Your task to perform on an android device: Go to Wikipedia Image 0: 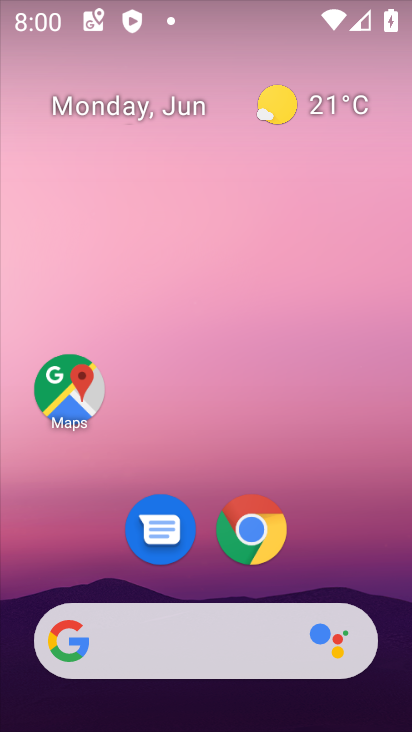
Step 0: click (253, 520)
Your task to perform on an android device: Go to Wikipedia Image 1: 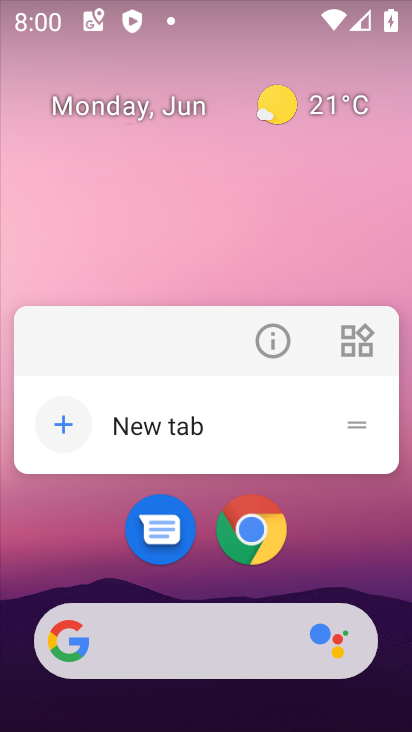
Step 1: click (254, 525)
Your task to perform on an android device: Go to Wikipedia Image 2: 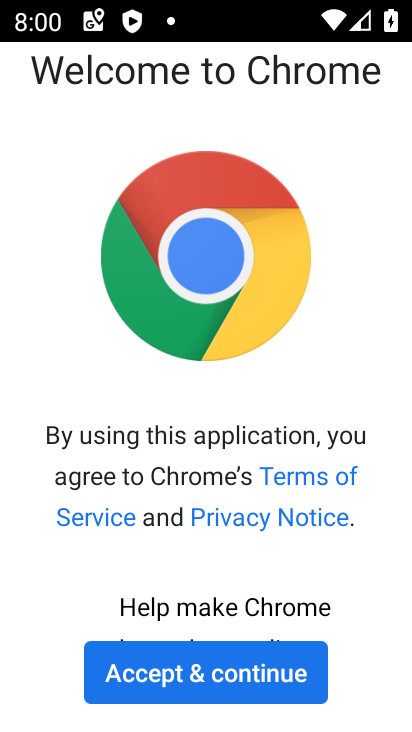
Step 2: click (162, 668)
Your task to perform on an android device: Go to Wikipedia Image 3: 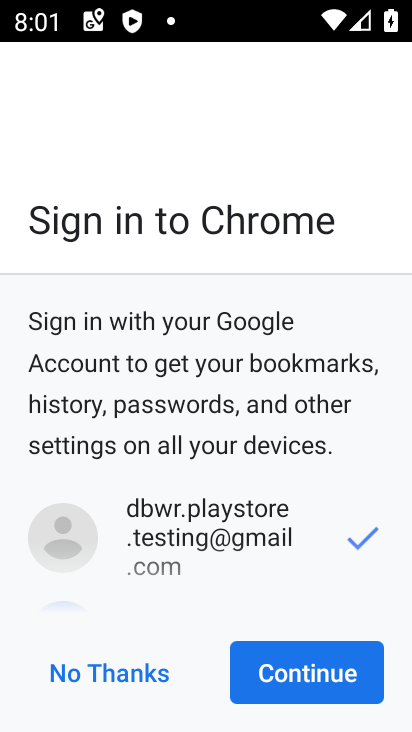
Step 3: click (113, 666)
Your task to perform on an android device: Go to Wikipedia Image 4: 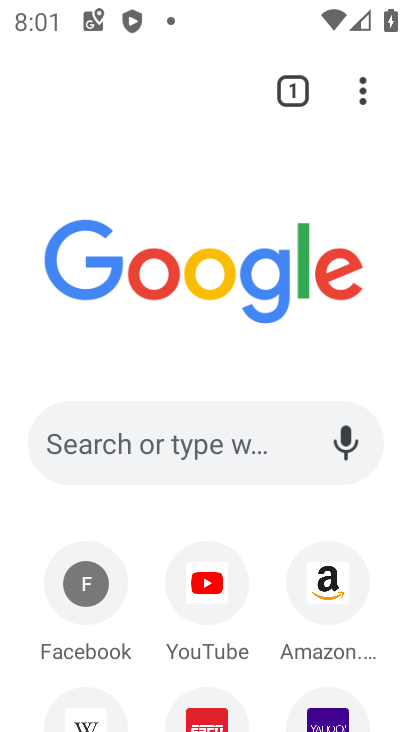
Step 4: click (72, 717)
Your task to perform on an android device: Go to Wikipedia Image 5: 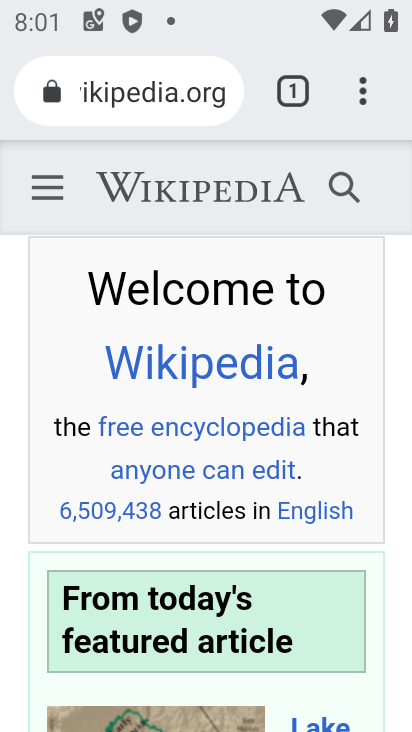
Step 5: task complete